Your task to perform on an android device: create a new album in the google photos Image 0: 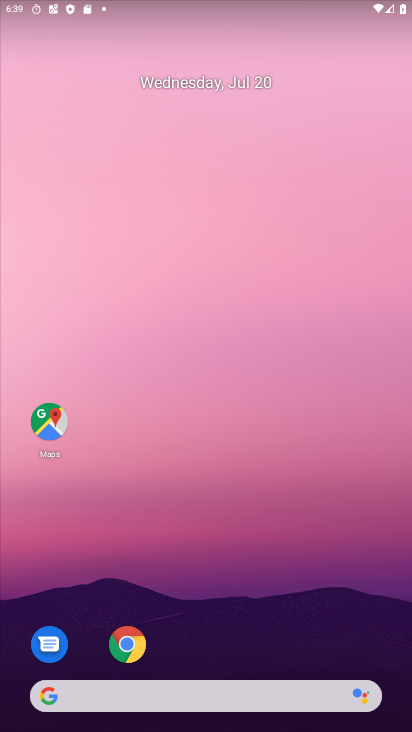
Step 0: drag from (224, 618) to (220, 52)
Your task to perform on an android device: create a new album in the google photos Image 1: 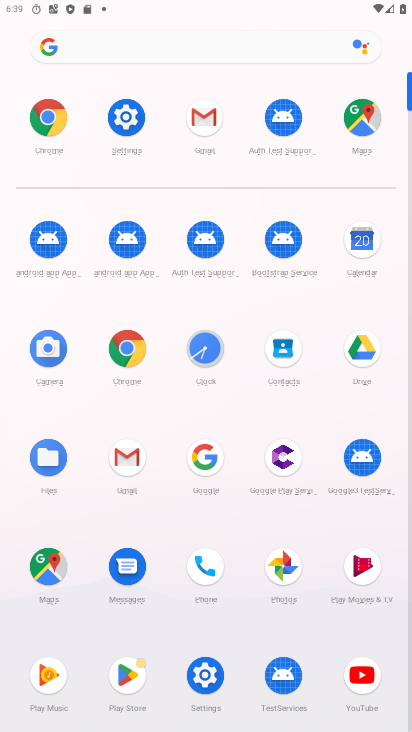
Step 1: click (289, 558)
Your task to perform on an android device: create a new album in the google photos Image 2: 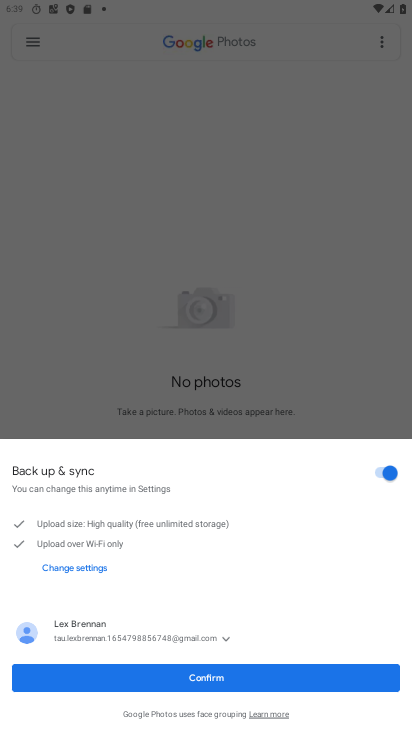
Step 2: click (199, 677)
Your task to perform on an android device: create a new album in the google photos Image 3: 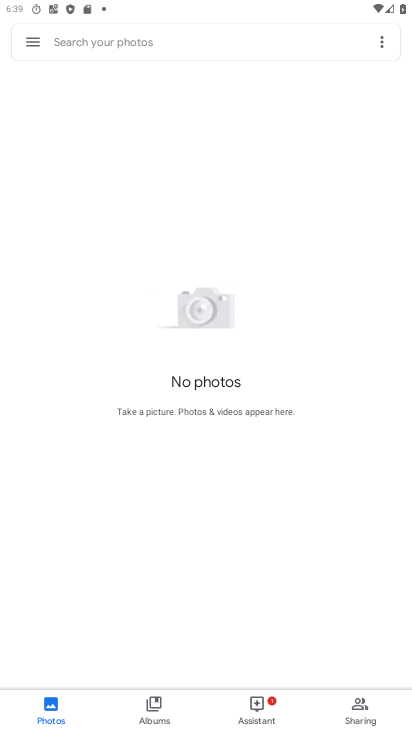
Step 3: task complete